Your task to perform on an android device: What is the recent news? Image 0: 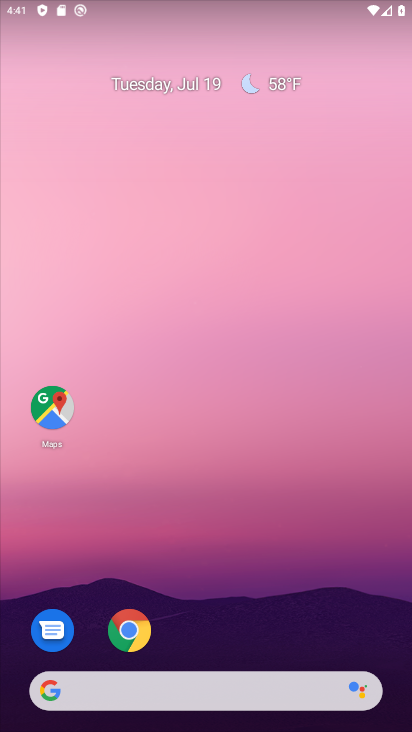
Step 0: drag from (290, 653) to (193, 153)
Your task to perform on an android device: What is the recent news? Image 1: 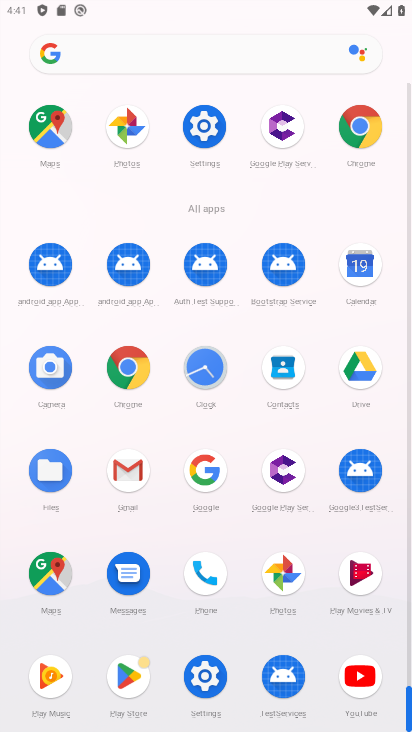
Step 1: click (358, 129)
Your task to perform on an android device: What is the recent news? Image 2: 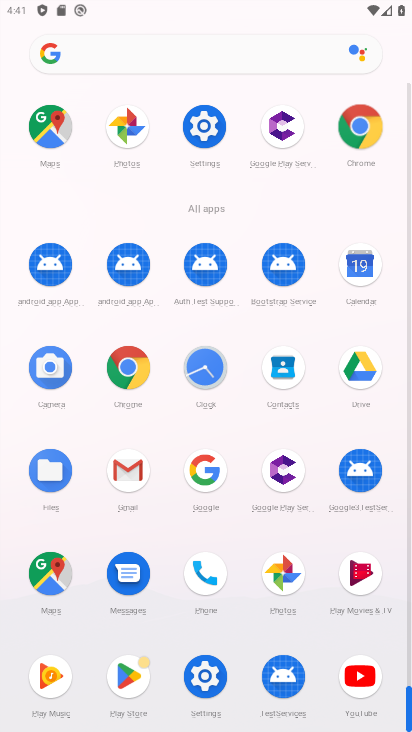
Step 2: click (359, 128)
Your task to perform on an android device: What is the recent news? Image 3: 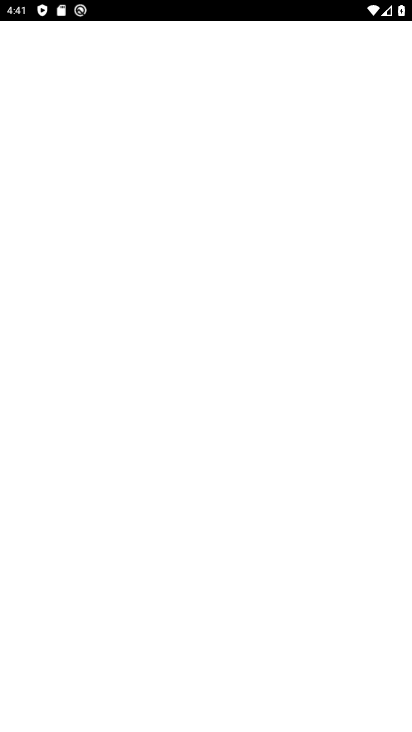
Step 3: click (361, 127)
Your task to perform on an android device: What is the recent news? Image 4: 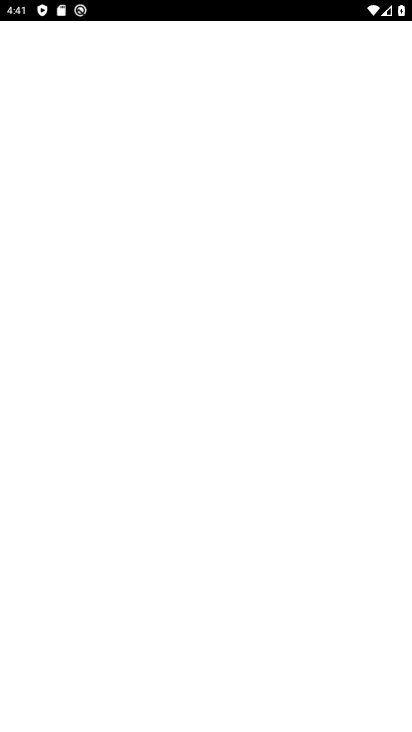
Step 4: click (361, 131)
Your task to perform on an android device: What is the recent news? Image 5: 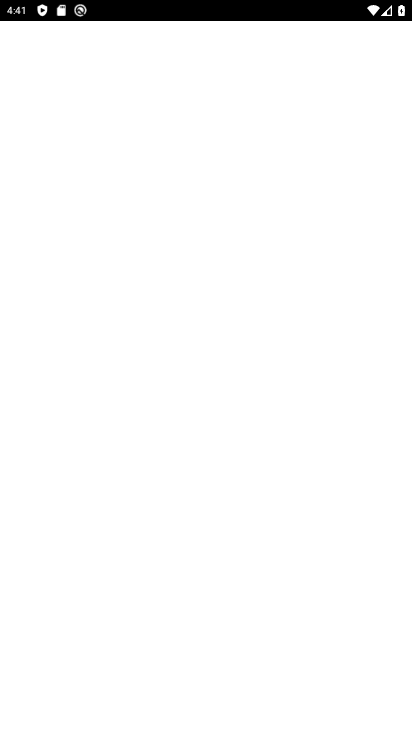
Step 5: click (362, 134)
Your task to perform on an android device: What is the recent news? Image 6: 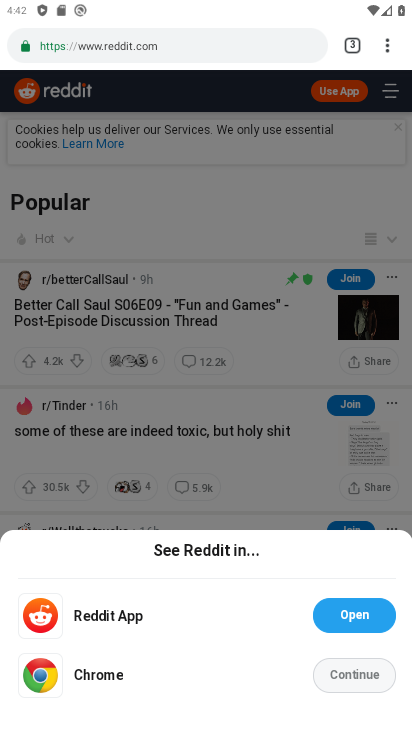
Step 6: task complete